Your task to perform on an android device: set the timer Image 0: 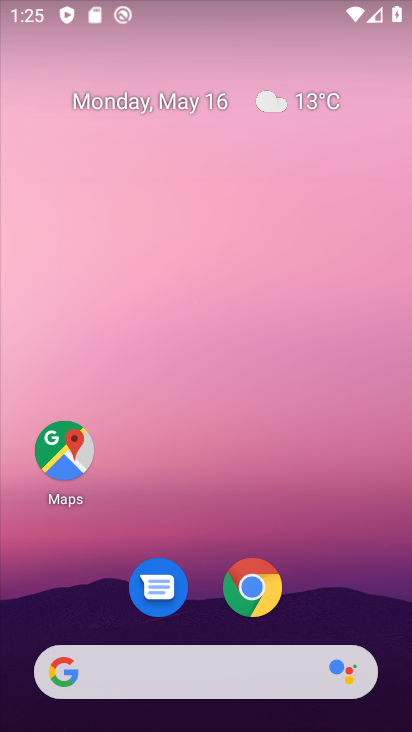
Step 0: drag from (210, 648) to (213, 362)
Your task to perform on an android device: set the timer Image 1: 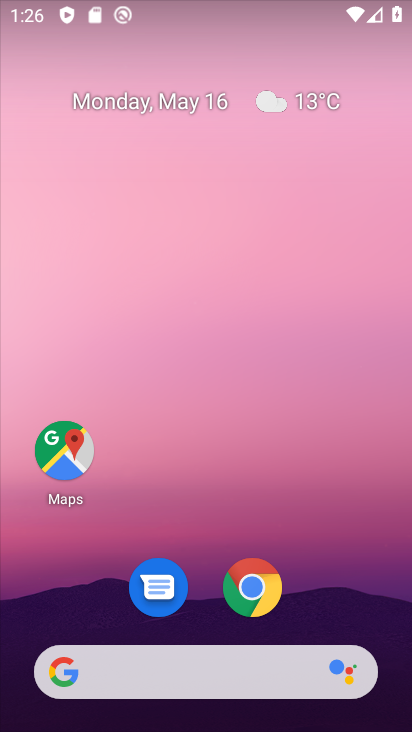
Step 1: drag from (216, 650) to (202, 157)
Your task to perform on an android device: set the timer Image 2: 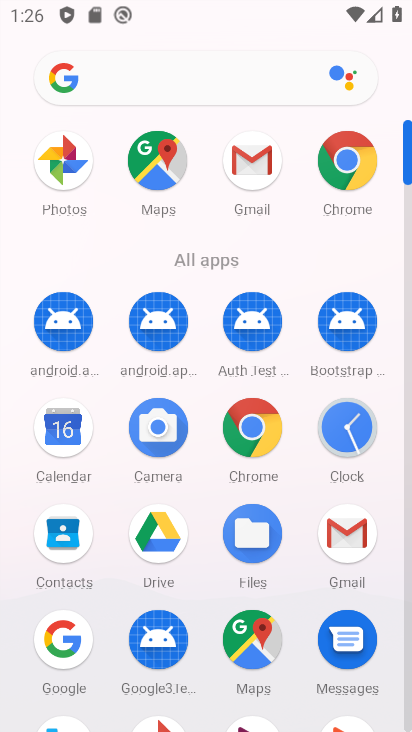
Step 2: click (348, 442)
Your task to perform on an android device: set the timer Image 3: 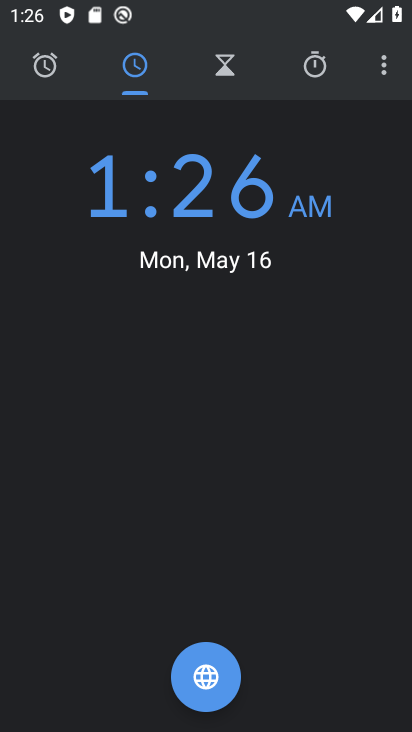
Step 3: click (221, 69)
Your task to perform on an android device: set the timer Image 4: 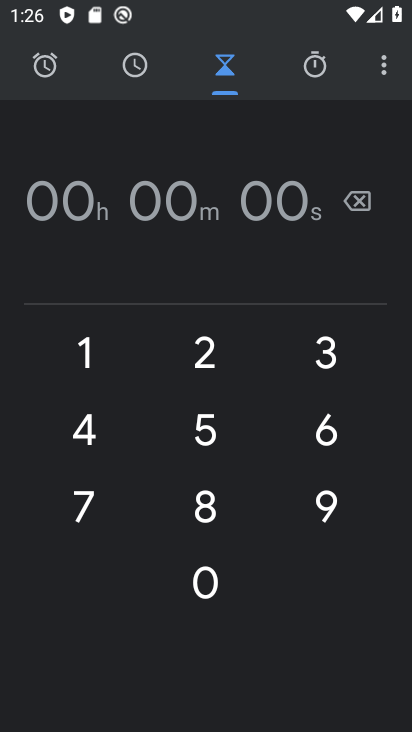
Step 4: click (211, 580)
Your task to perform on an android device: set the timer Image 5: 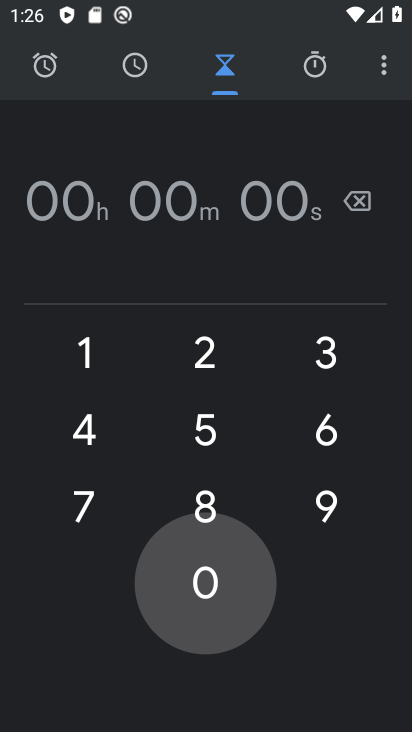
Step 5: click (211, 506)
Your task to perform on an android device: set the timer Image 6: 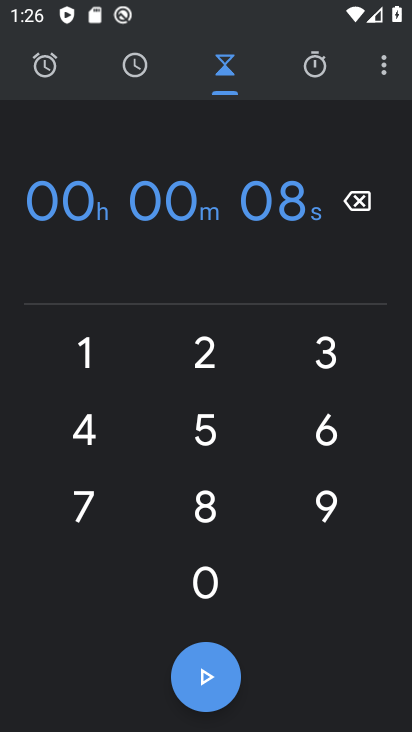
Step 6: click (210, 581)
Your task to perform on an android device: set the timer Image 7: 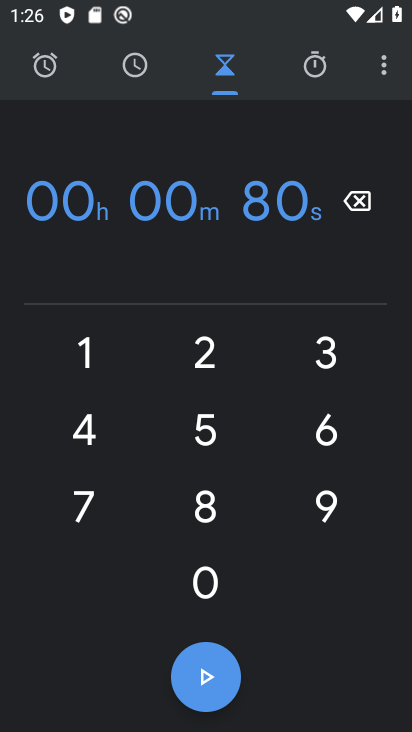
Step 7: click (320, 507)
Your task to perform on an android device: set the timer Image 8: 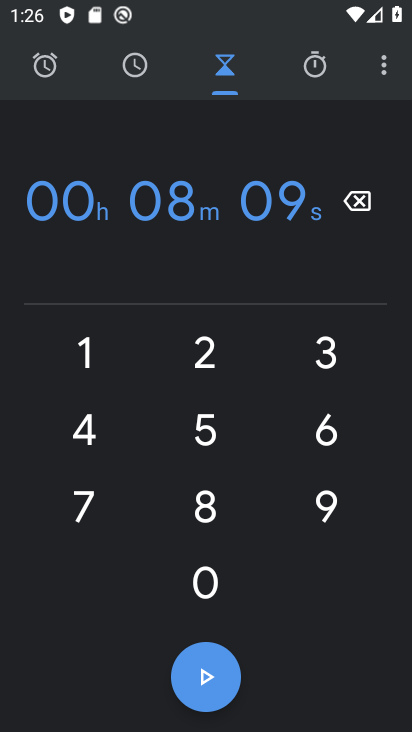
Step 8: click (206, 681)
Your task to perform on an android device: set the timer Image 9: 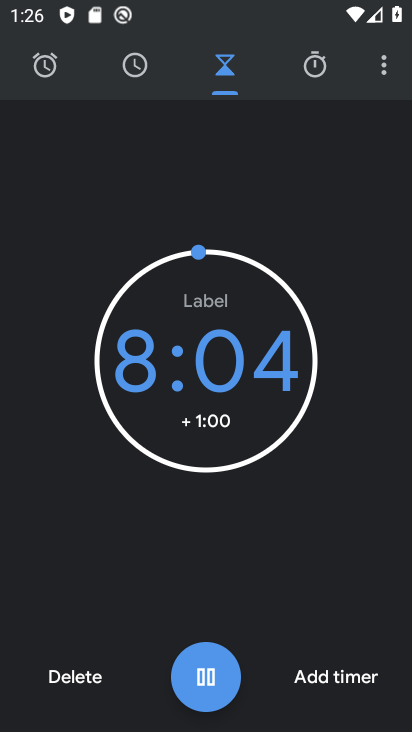
Step 9: task complete